Your task to perform on an android device: Open Google Maps Image 0: 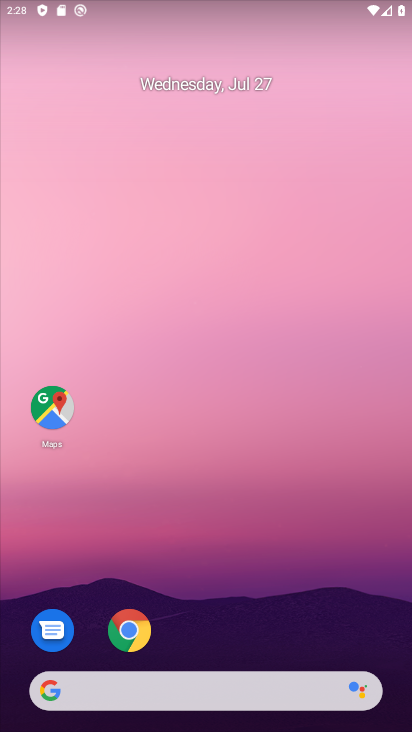
Step 0: press home button
Your task to perform on an android device: Open Google Maps Image 1: 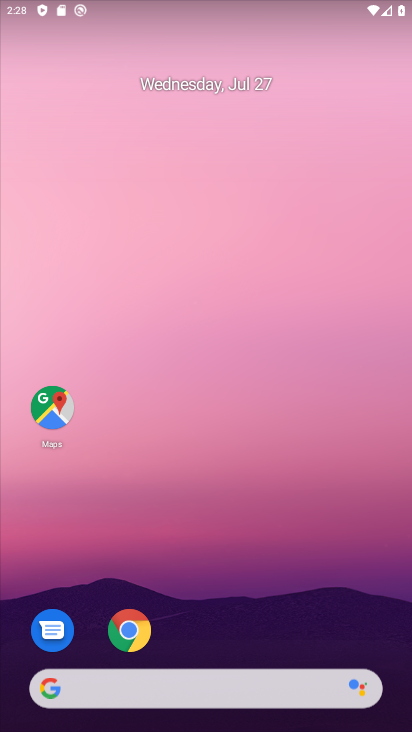
Step 1: drag from (233, 646) to (271, 170)
Your task to perform on an android device: Open Google Maps Image 2: 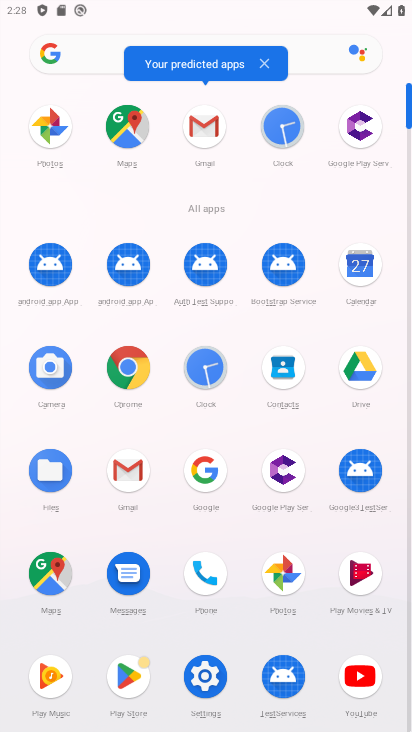
Step 2: click (127, 139)
Your task to perform on an android device: Open Google Maps Image 3: 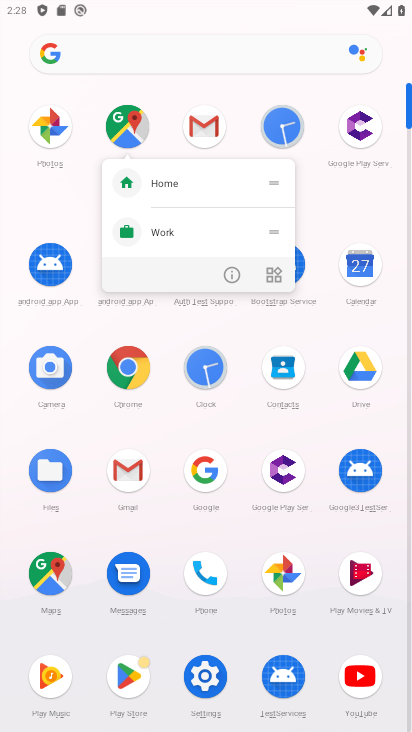
Step 3: click (127, 139)
Your task to perform on an android device: Open Google Maps Image 4: 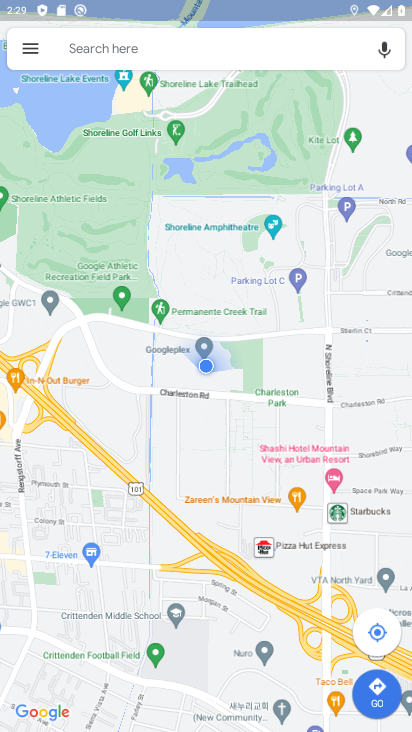
Step 4: task complete